Your task to perform on an android device: turn on data saver in the chrome app Image 0: 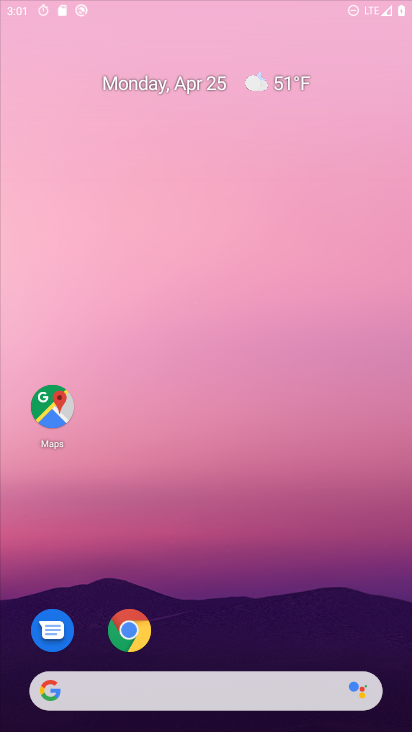
Step 0: click (164, 110)
Your task to perform on an android device: turn on data saver in the chrome app Image 1: 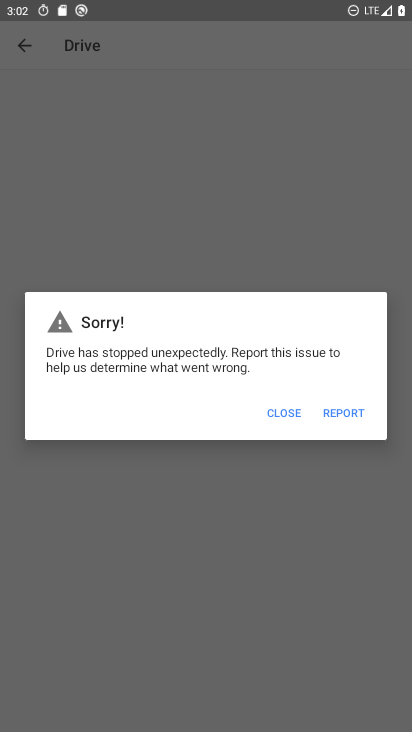
Step 1: press home button
Your task to perform on an android device: turn on data saver in the chrome app Image 2: 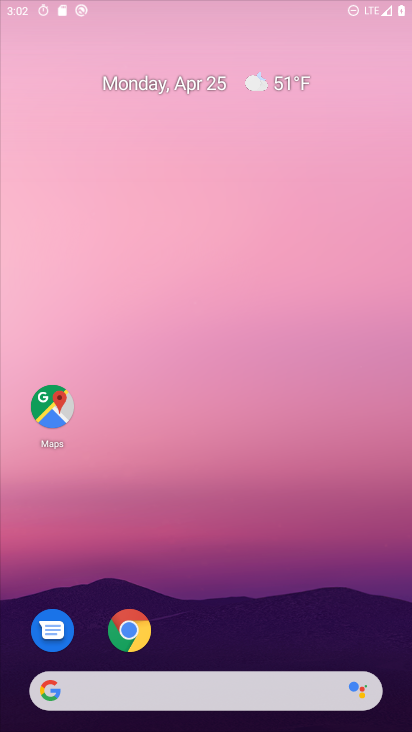
Step 2: drag from (204, 587) to (223, 221)
Your task to perform on an android device: turn on data saver in the chrome app Image 3: 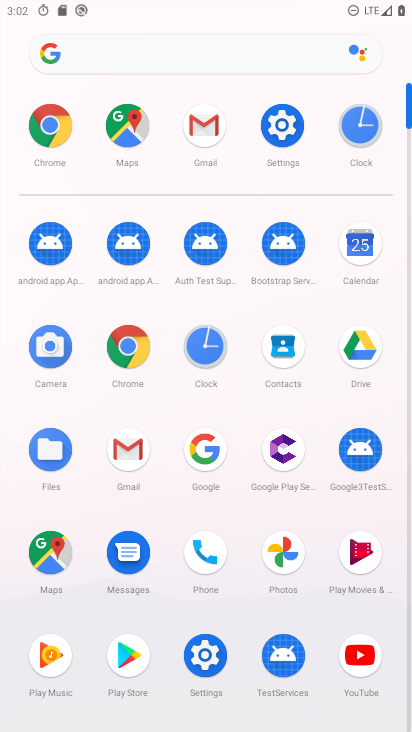
Step 3: click (123, 343)
Your task to perform on an android device: turn on data saver in the chrome app Image 4: 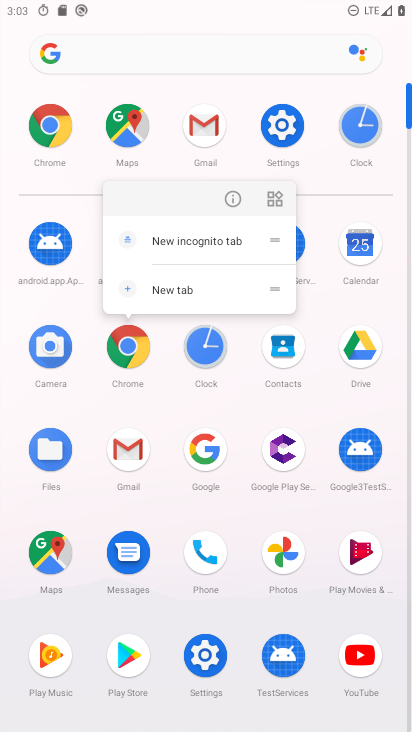
Step 4: click (234, 197)
Your task to perform on an android device: turn on data saver in the chrome app Image 5: 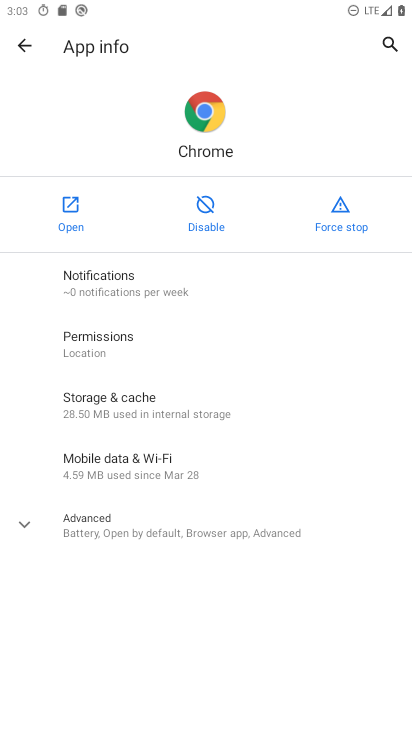
Step 5: click (78, 199)
Your task to perform on an android device: turn on data saver in the chrome app Image 6: 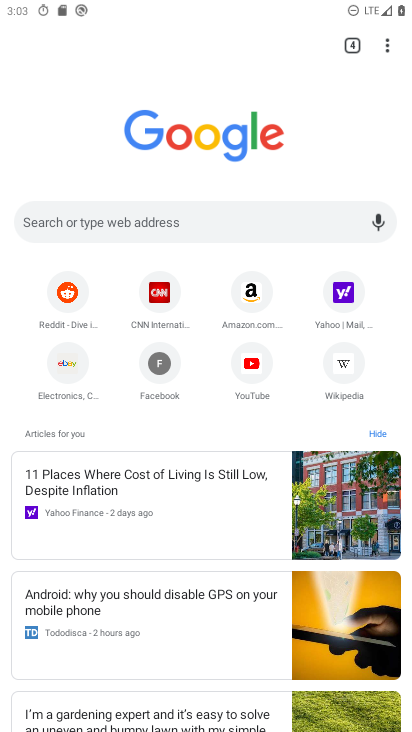
Step 6: drag from (326, 84) to (348, 475)
Your task to perform on an android device: turn on data saver in the chrome app Image 7: 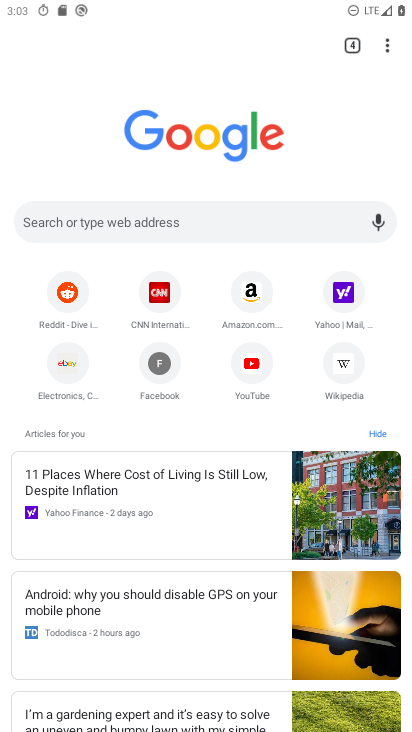
Step 7: drag from (315, 106) to (331, 378)
Your task to perform on an android device: turn on data saver in the chrome app Image 8: 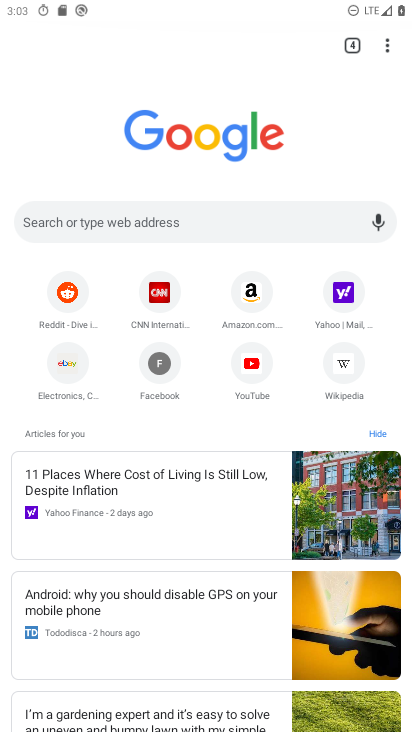
Step 8: drag from (199, 508) to (313, 192)
Your task to perform on an android device: turn on data saver in the chrome app Image 9: 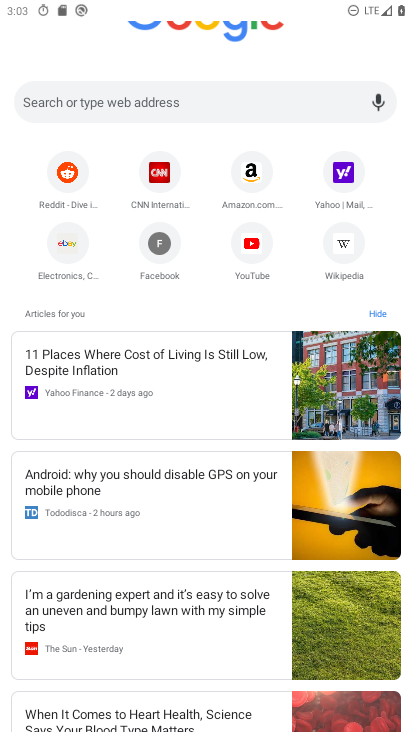
Step 9: drag from (297, 191) to (273, 644)
Your task to perform on an android device: turn on data saver in the chrome app Image 10: 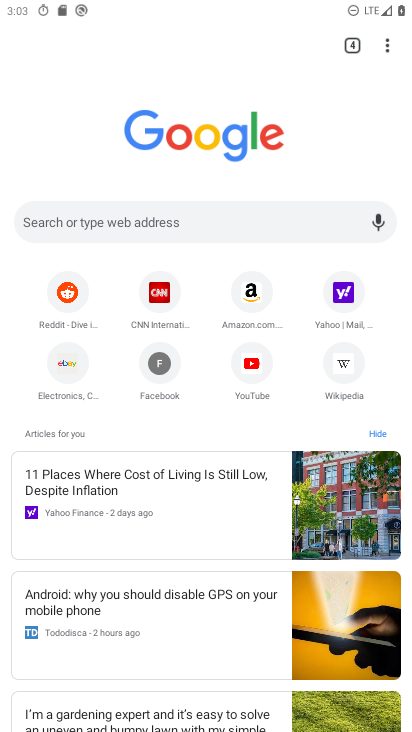
Step 10: drag from (385, 53) to (277, 431)
Your task to perform on an android device: turn on data saver in the chrome app Image 11: 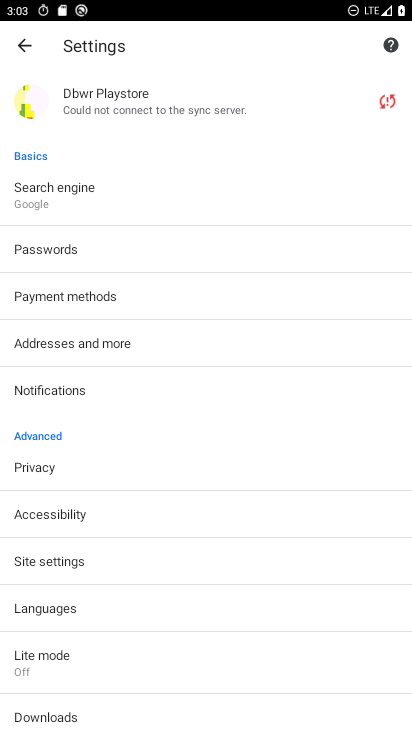
Step 11: drag from (243, 585) to (117, 2)
Your task to perform on an android device: turn on data saver in the chrome app Image 12: 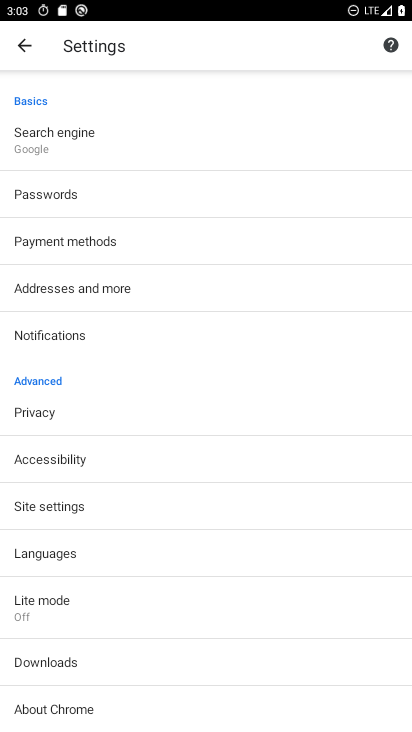
Step 12: click (134, 611)
Your task to perform on an android device: turn on data saver in the chrome app Image 13: 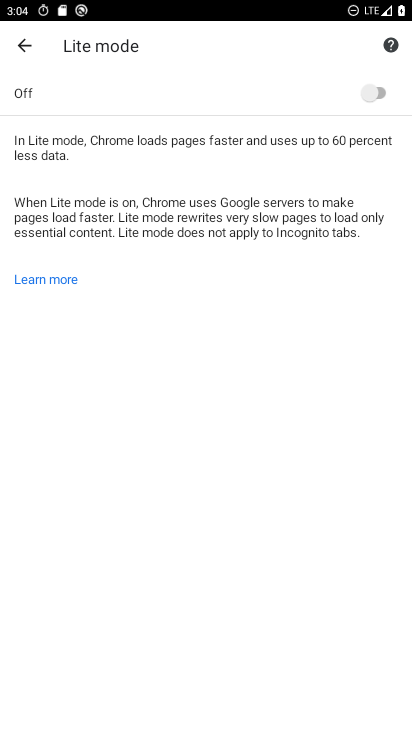
Step 13: click (338, 90)
Your task to perform on an android device: turn on data saver in the chrome app Image 14: 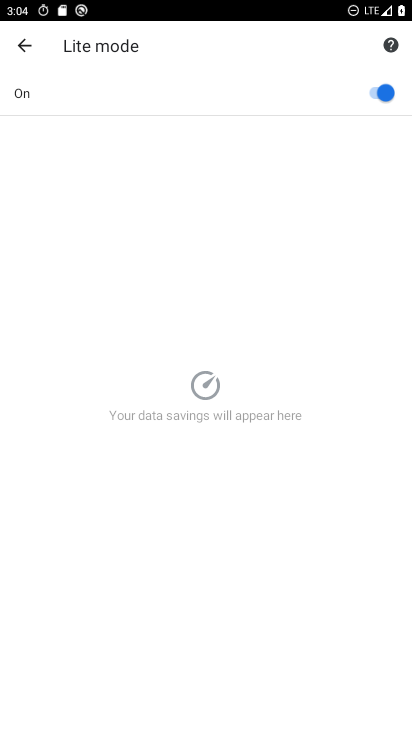
Step 14: task complete